Your task to perform on an android device: all mails in gmail Image 0: 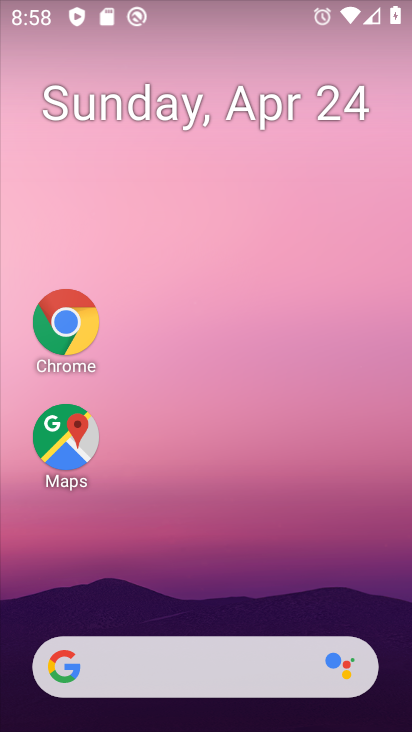
Step 0: drag from (240, 561) to (199, 51)
Your task to perform on an android device: all mails in gmail Image 1: 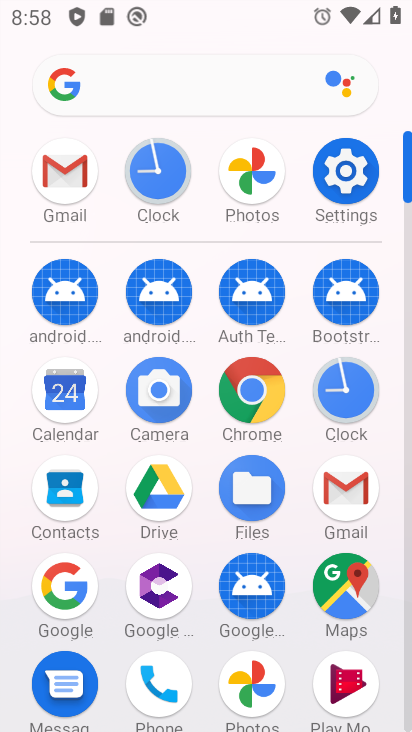
Step 1: click (65, 168)
Your task to perform on an android device: all mails in gmail Image 2: 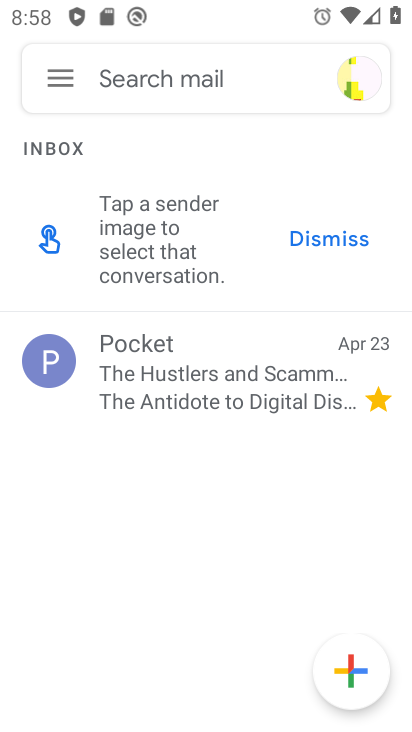
Step 2: click (55, 83)
Your task to perform on an android device: all mails in gmail Image 3: 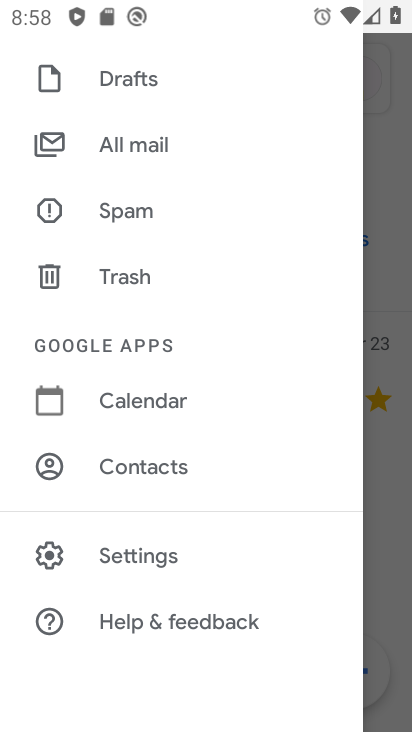
Step 3: click (115, 148)
Your task to perform on an android device: all mails in gmail Image 4: 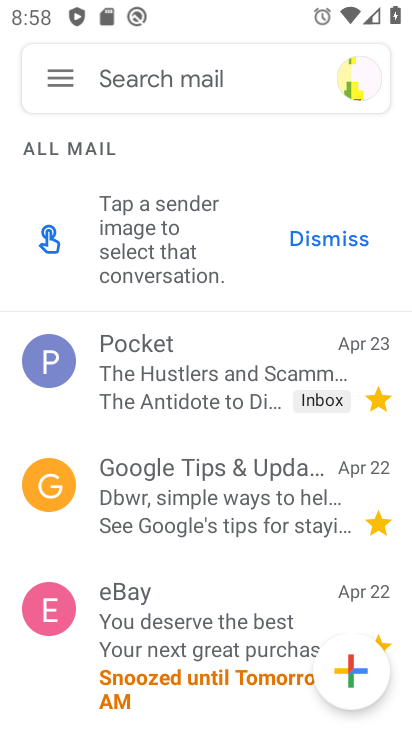
Step 4: task complete